Your task to perform on an android device: Open wifi settings Image 0: 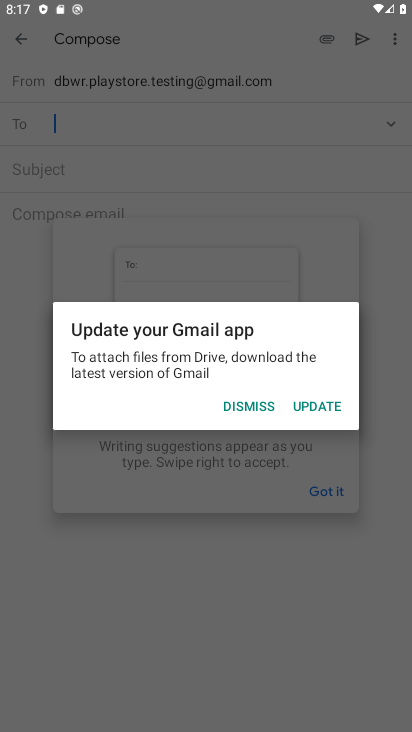
Step 0: press home button
Your task to perform on an android device: Open wifi settings Image 1: 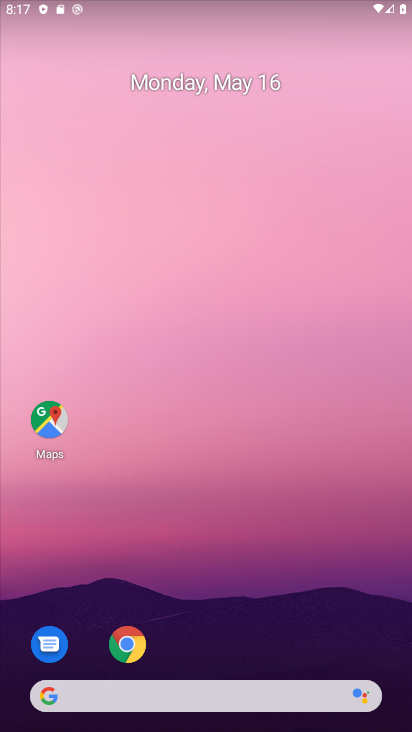
Step 1: drag from (229, 607) to (272, 144)
Your task to perform on an android device: Open wifi settings Image 2: 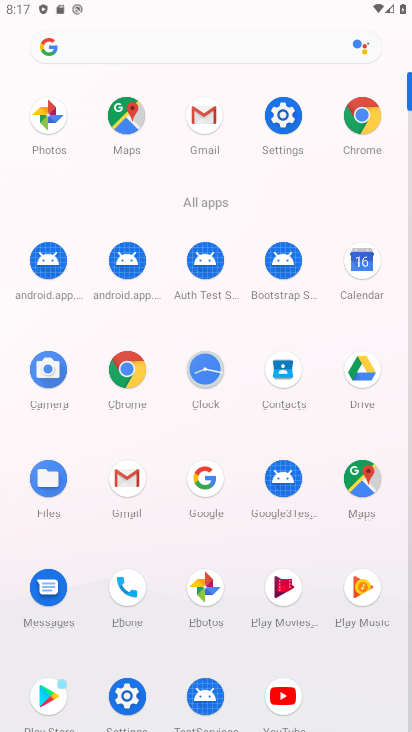
Step 2: click (278, 118)
Your task to perform on an android device: Open wifi settings Image 3: 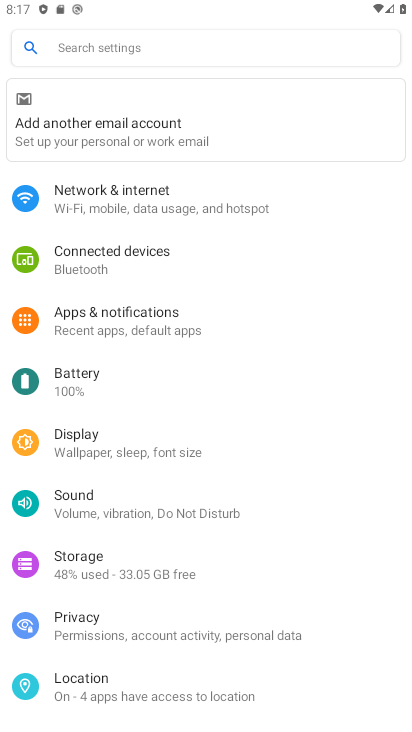
Step 3: click (144, 193)
Your task to perform on an android device: Open wifi settings Image 4: 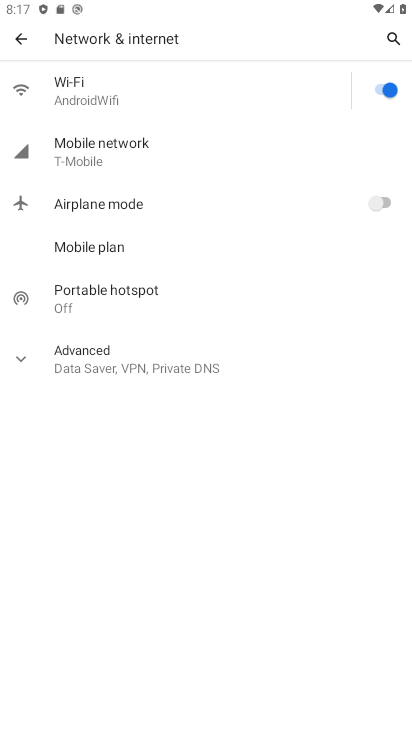
Step 4: click (99, 99)
Your task to perform on an android device: Open wifi settings Image 5: 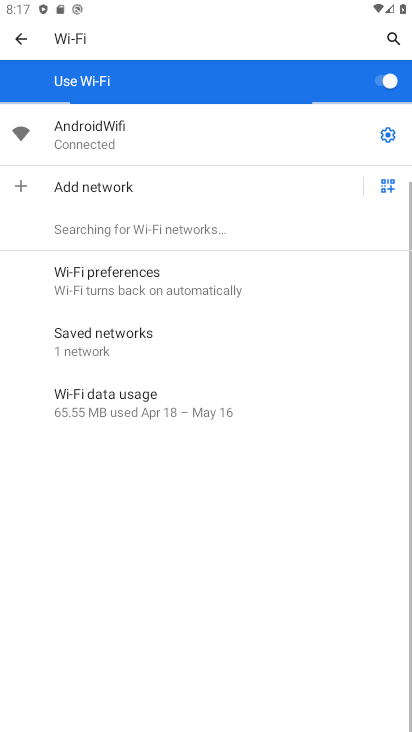
Step 5: click (386, 132)
Your task to perform on an android device: Open wifi settings Image 6: 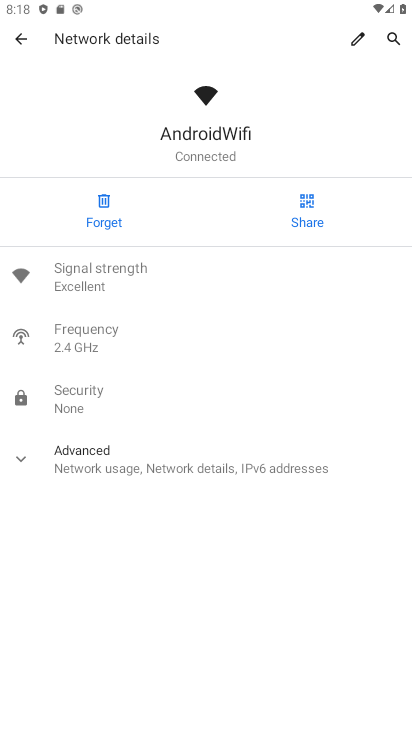
Step 6: task complete